Your task to perform on an android device: Search for the best websites on the internet Image 0: 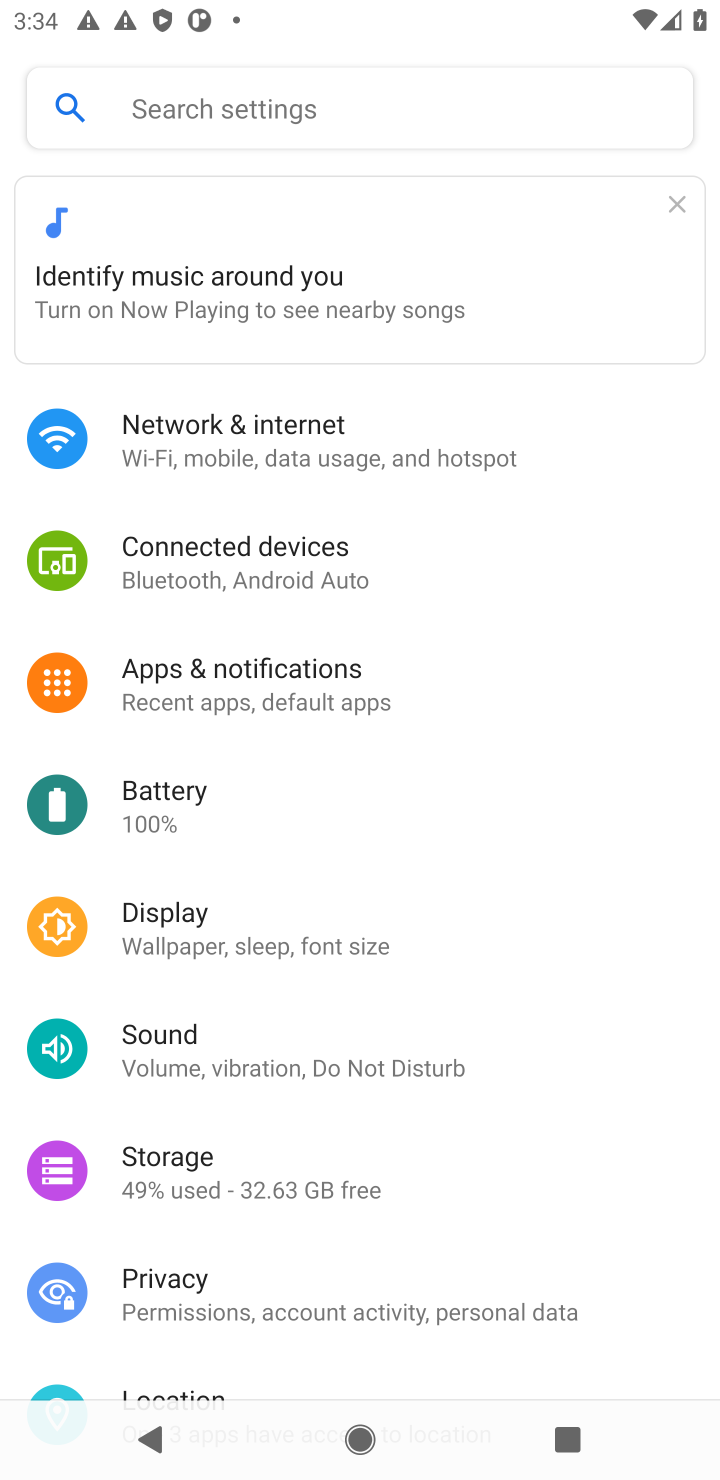
Step 0: press home button
Your task to perform on an android device: Search for the best websites on the internet Image 1: 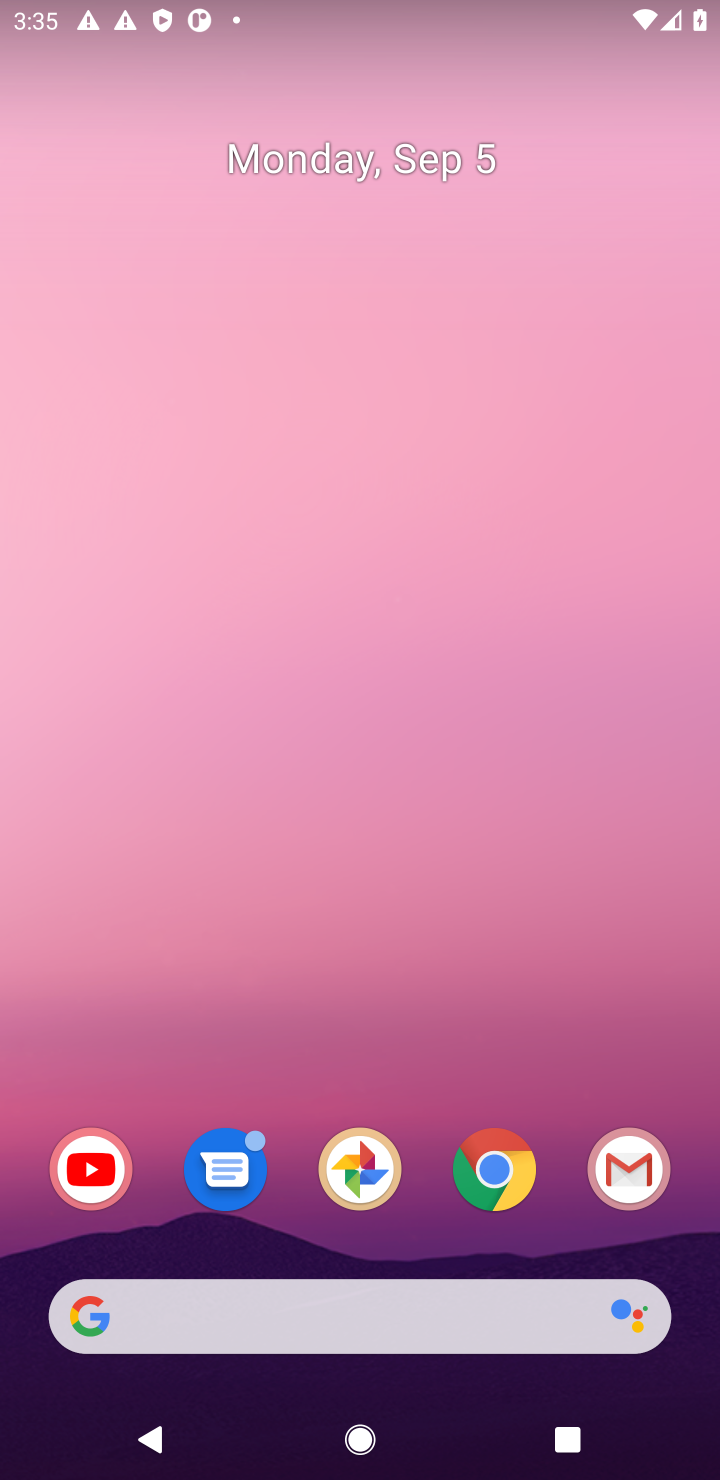
Step 1: click (490, 1173)
Your task to perform on an android device: Search for the best websites on the internet Image 2: 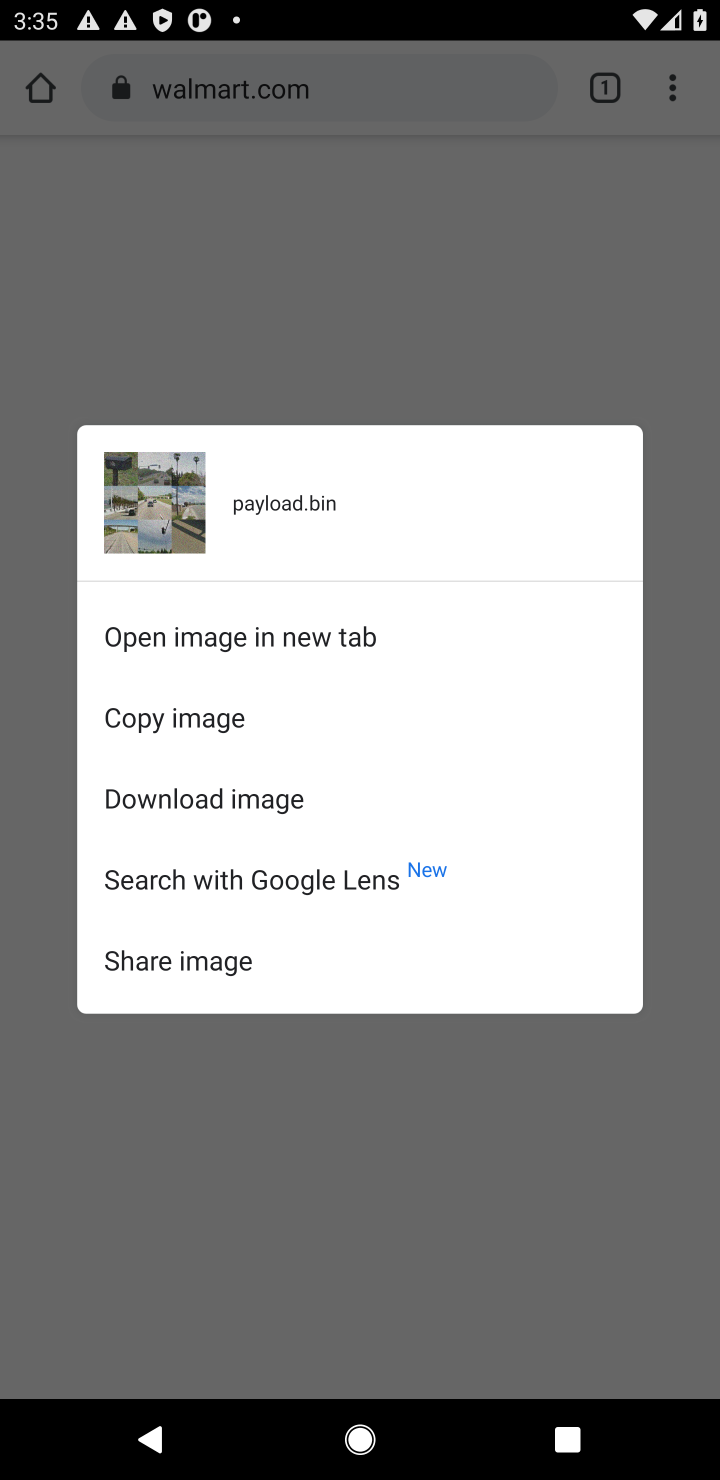
Step 2: click (256, 96)
Your task to perform on an android device: Search for the best websites on the internet Image 3: 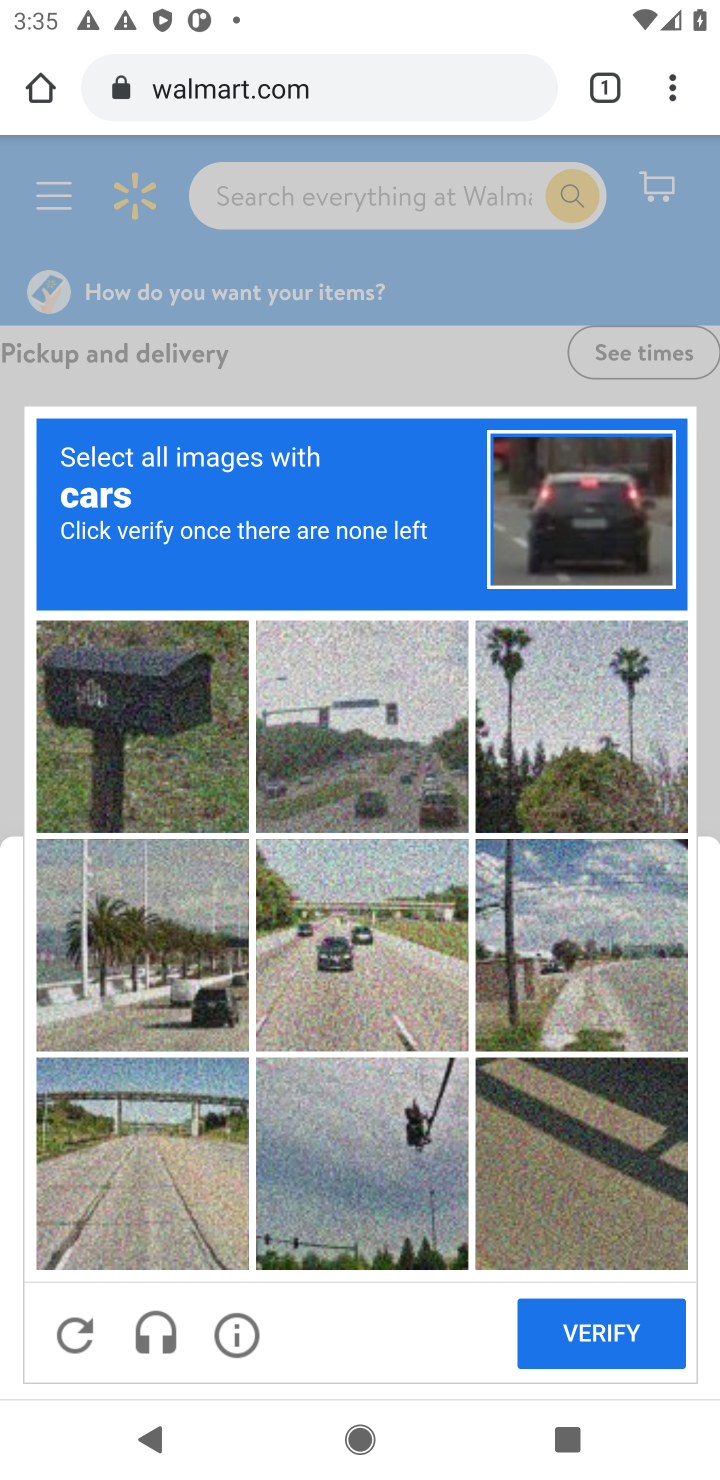
Step 3: click (256, 96)
Your task to perform on an android device: Search for the best websites on the internet Image 4: 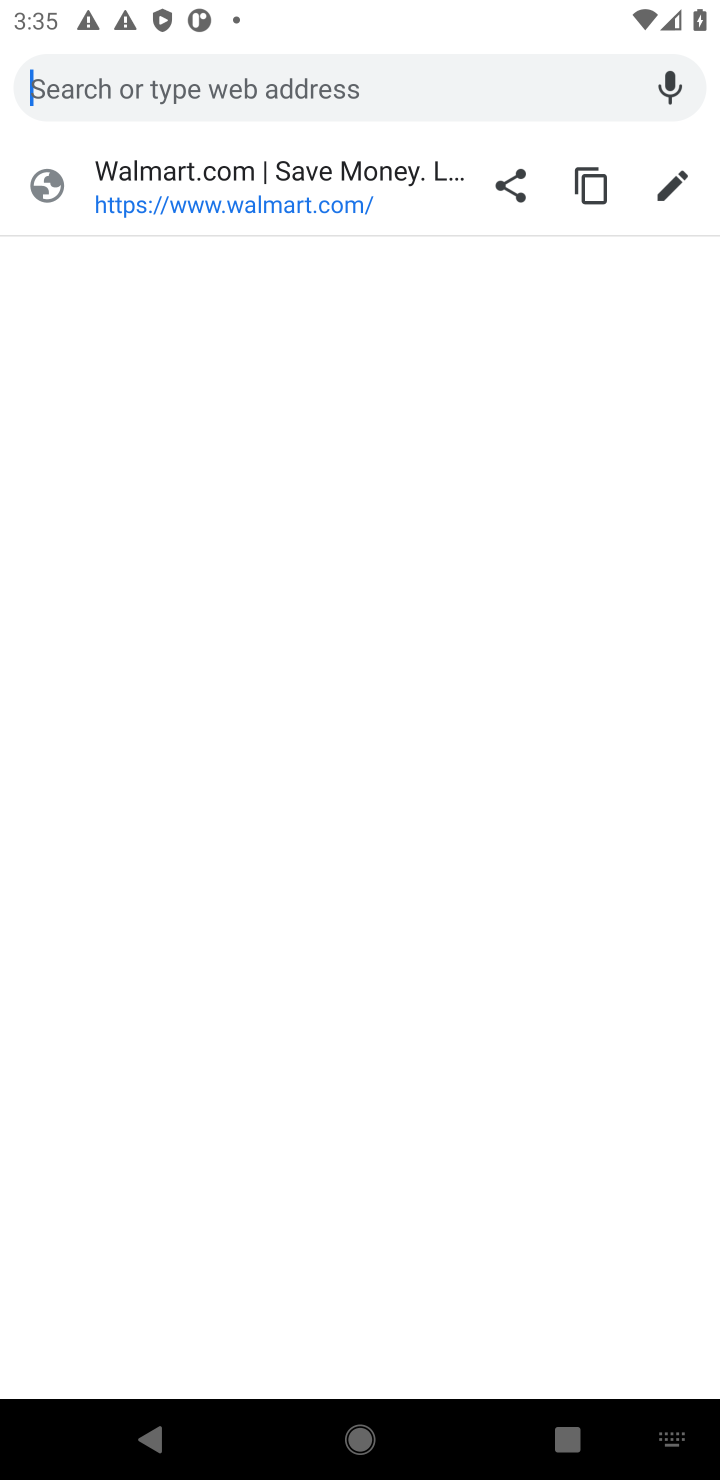
Step 4: type " best websites on the internet"
Your task to perform on an android device: Search for the best websites on the internet Image 5: 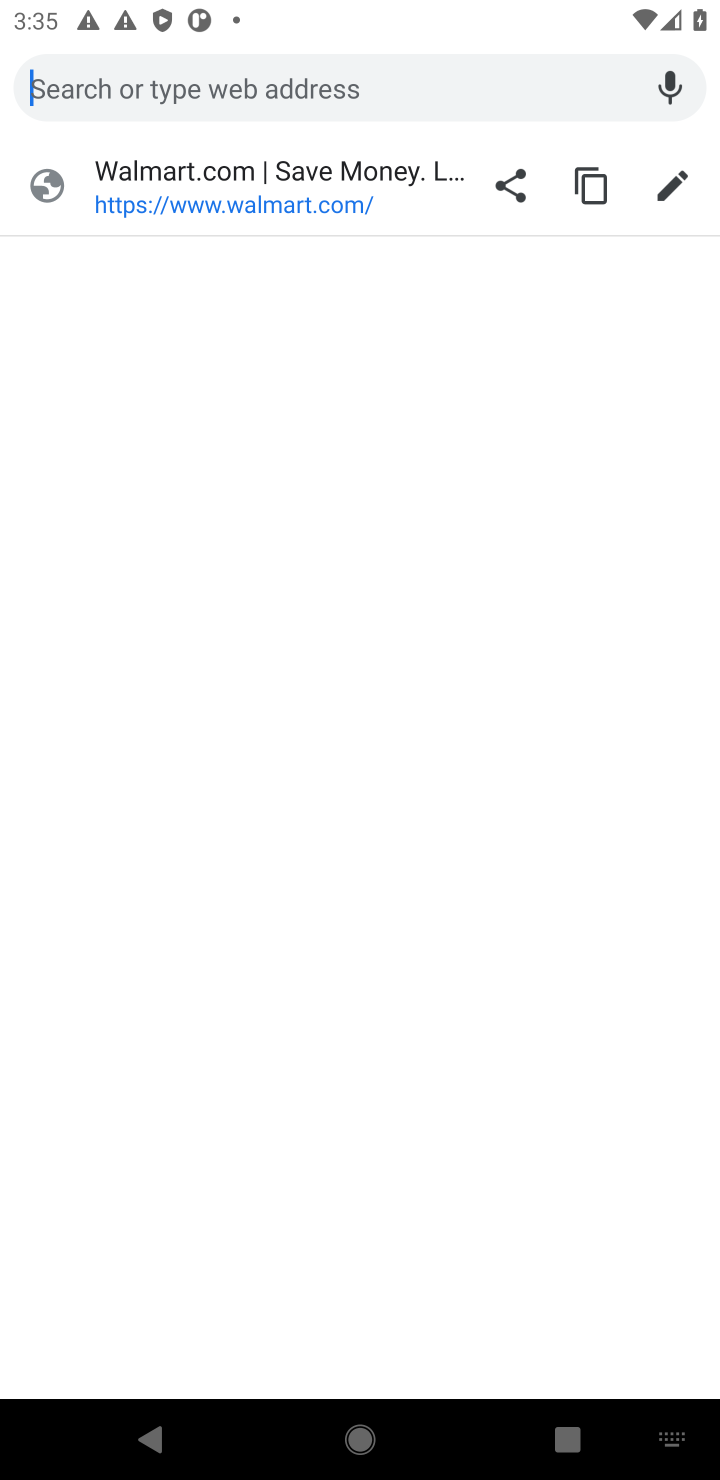
Step 5: click (218, 91)
Your task to perform on an android device: Search for the best websites on the internet Image 6: 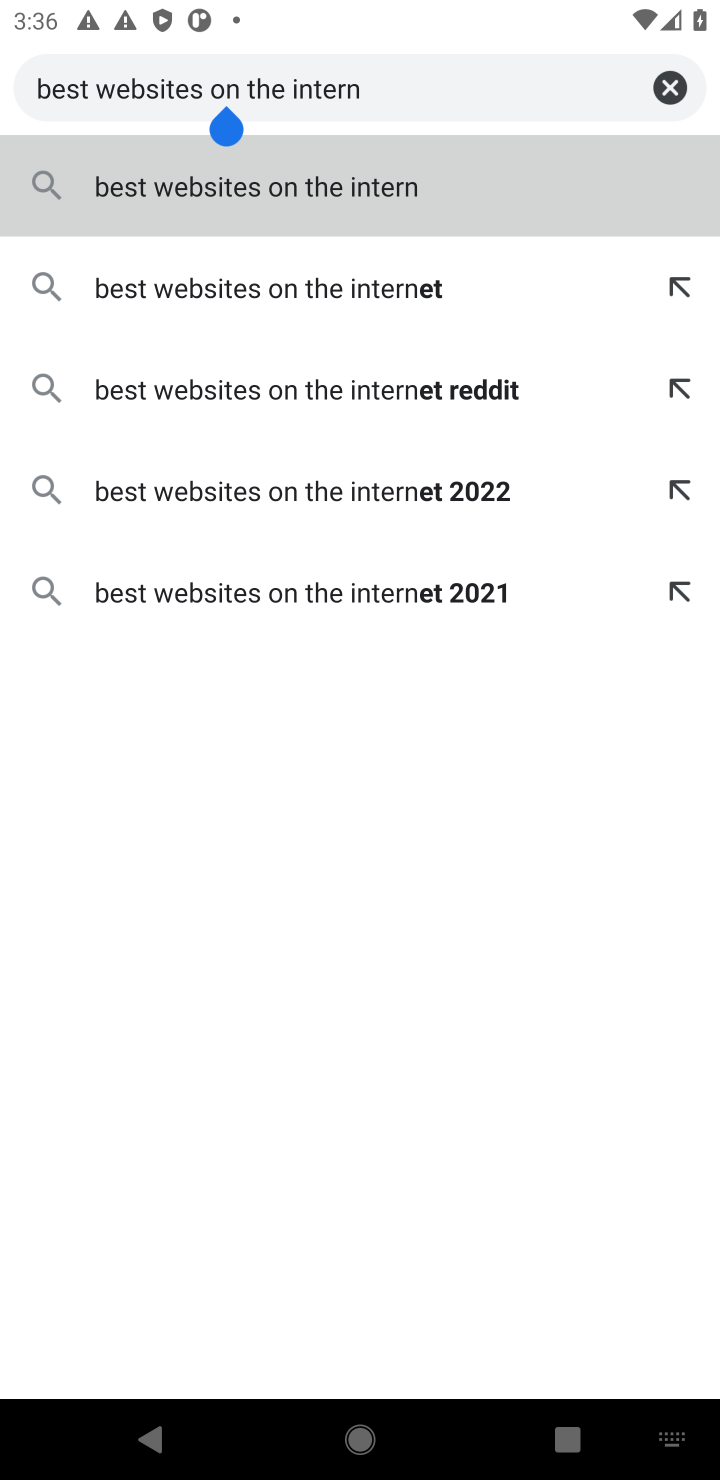
Step 6: click (201, 199)
Your task to perform on an android device: Search for the best websites on the internet Image 7: 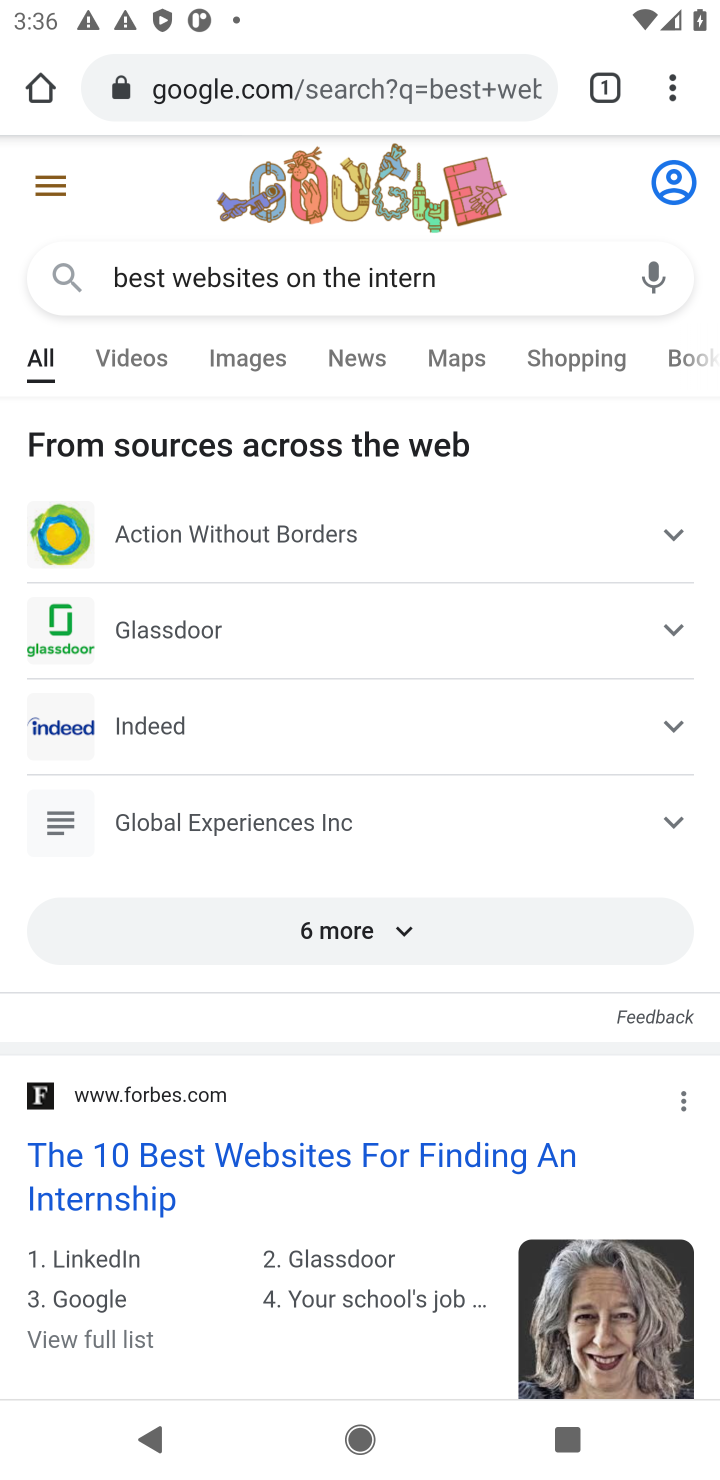
Step 7: drag from (314, 1085) to (378, 446)
Your task to perform on an android device: Search for the best websites on the internet Image 8: 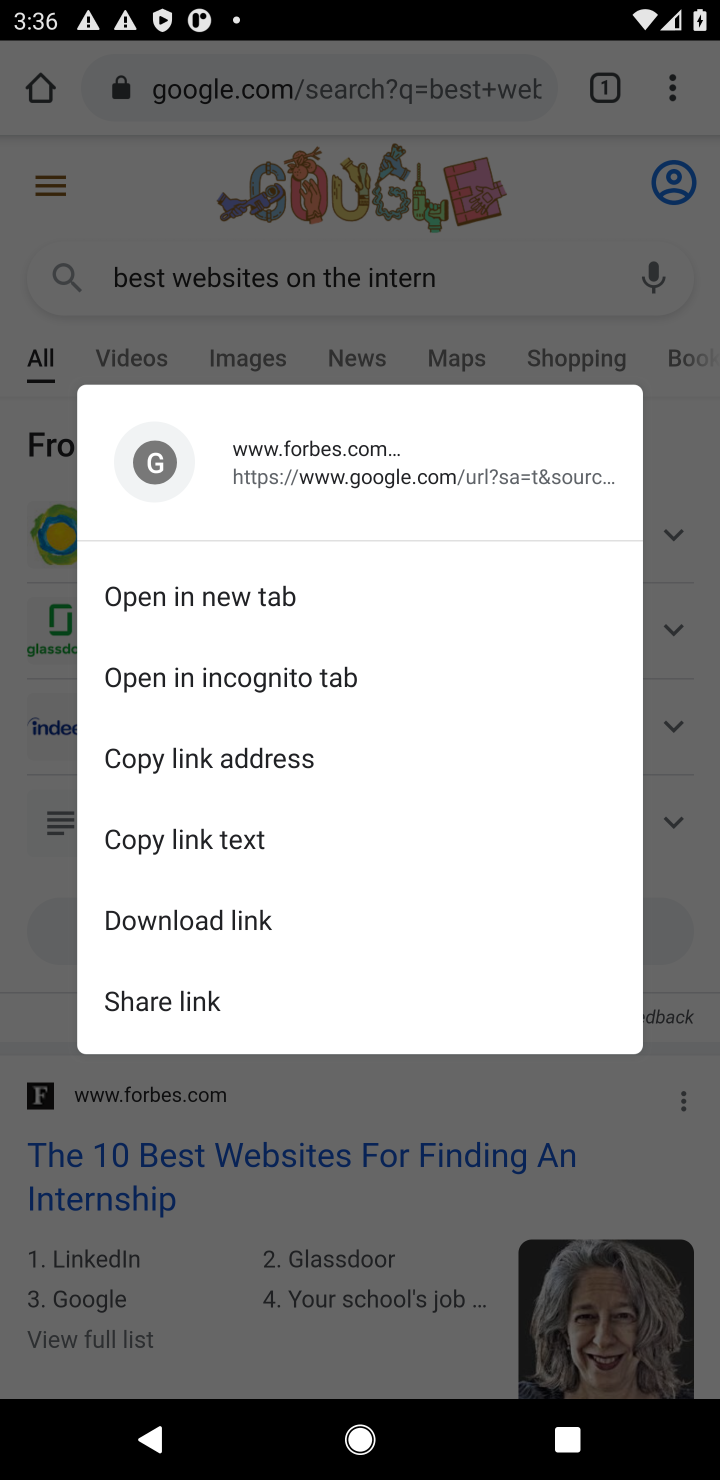
Step 8: click (264, 1140)
Your task to perform on an android device: Search for the best websites on the internet Image 9: 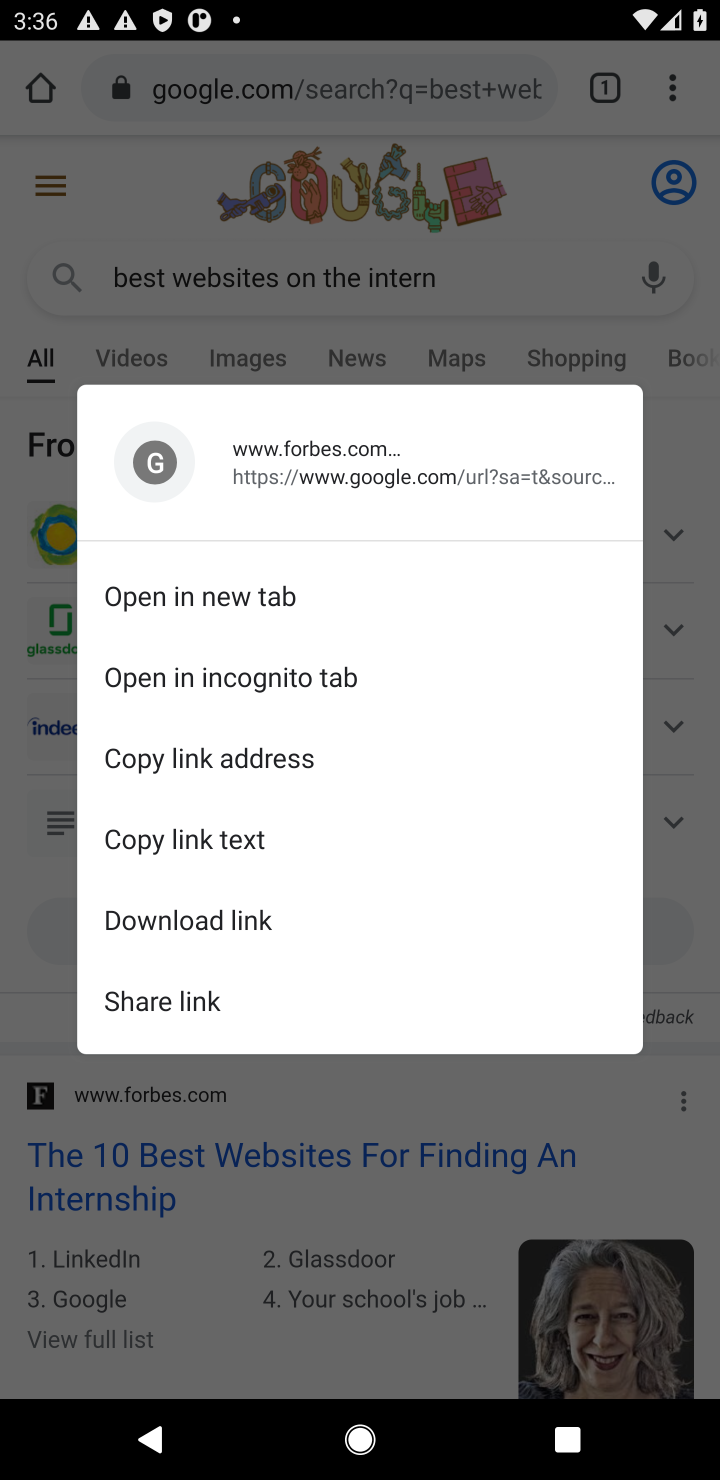
Step 9: task complete